Your task to perform on an android device: When is my next meeting? Image 0: 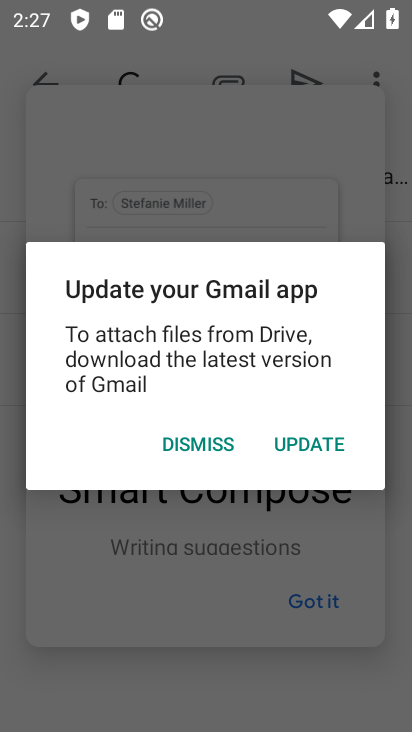
Step 0: press home button
Your task to perform on an android device: When is my next meeting? Image 1: 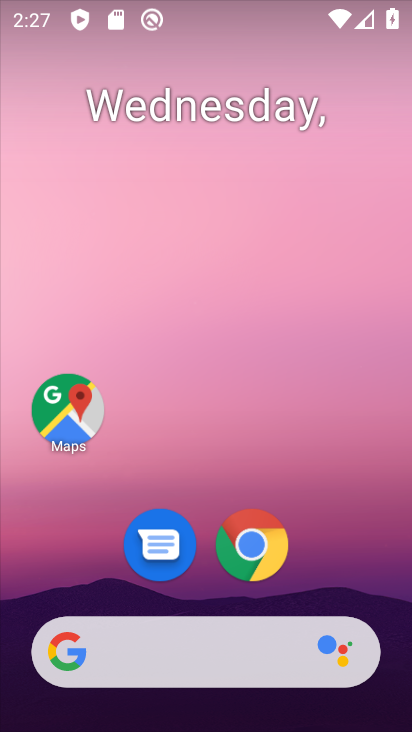
Step 1: drag from (136, 655) to (288, 104)
Your task to perform on an android device: When is my next meeting? Image 2: 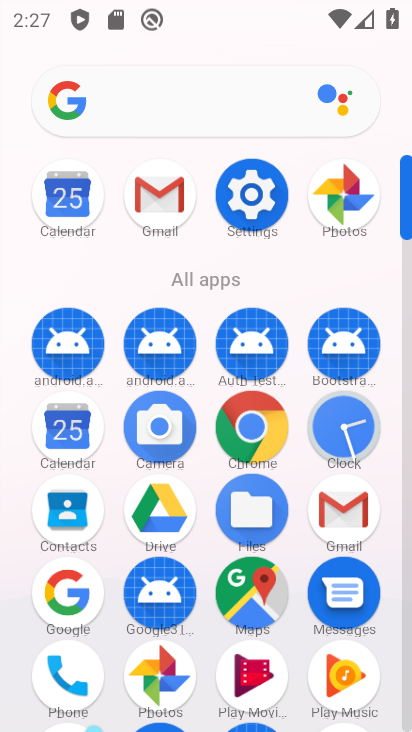
Step 2: click (71, 448)
Your task to perform on an android device: When is my next meeting? Image 3: 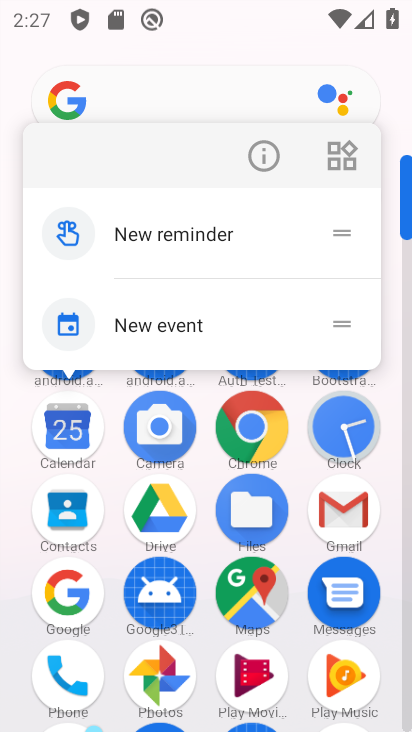
Step 3: click (64, 440)
Your task to perform on an android device: When is my next meeting? Image 4: 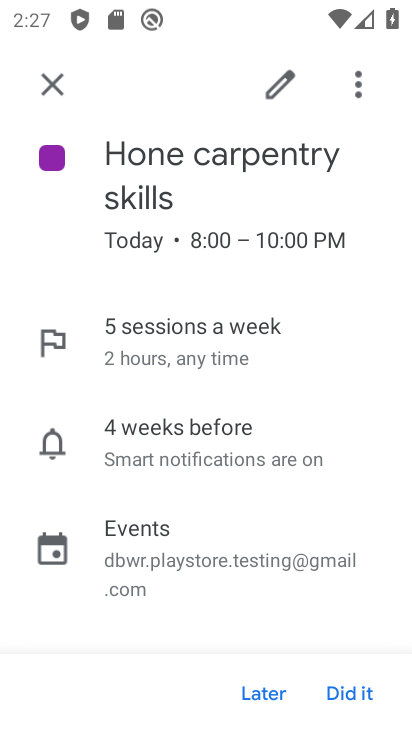
Step 4: task complete